Your task to perform on an android device: Check the news Image 0: 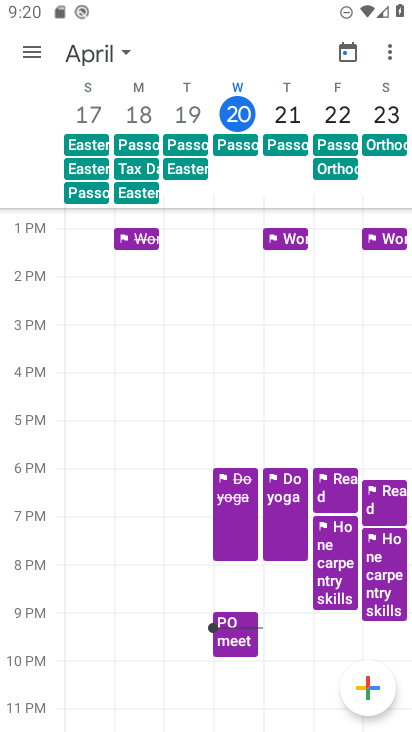
Step 0: press home button
Your task to perform on an android device: Check the news Image 1: 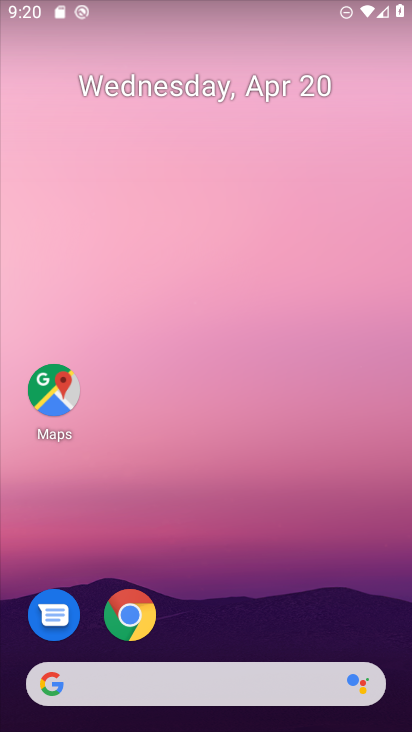
Step 1: drag from (233, 628) to (301, 38)
Your task to perform on an android device: Check the news Image 2: 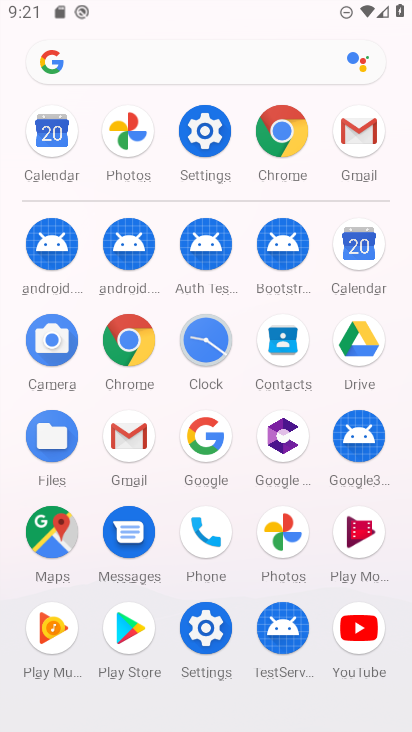
Step 2: click (205, 438)
Your task to perform on an android device: Check the news Image 3: 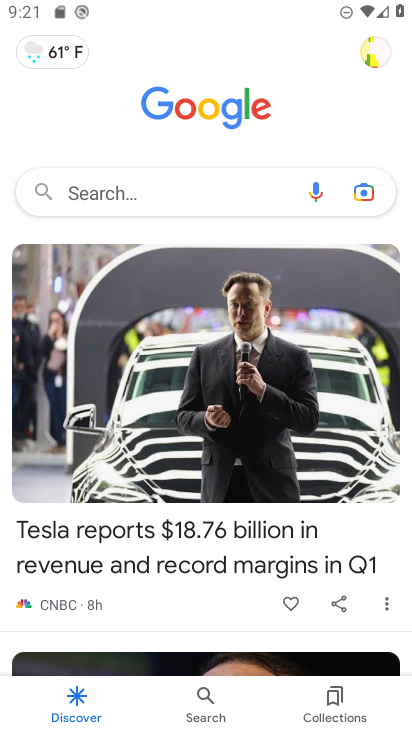
Step 3: click (152, 533)
Your task to perform on an android device: Check the news Image 4: 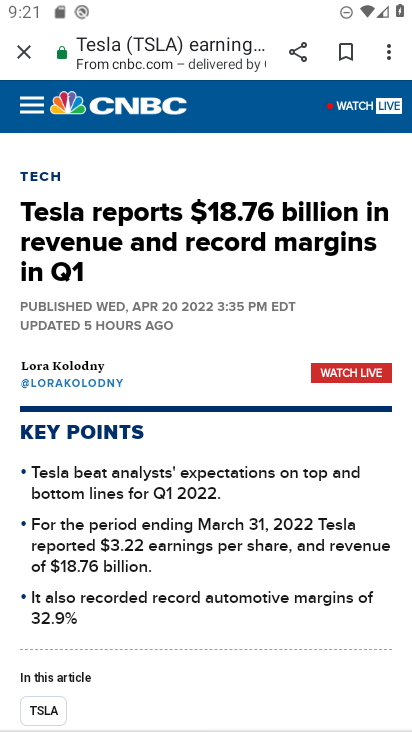
Step 4: task complete